Your task to perform on an android device: What's the weather today? Image 0: 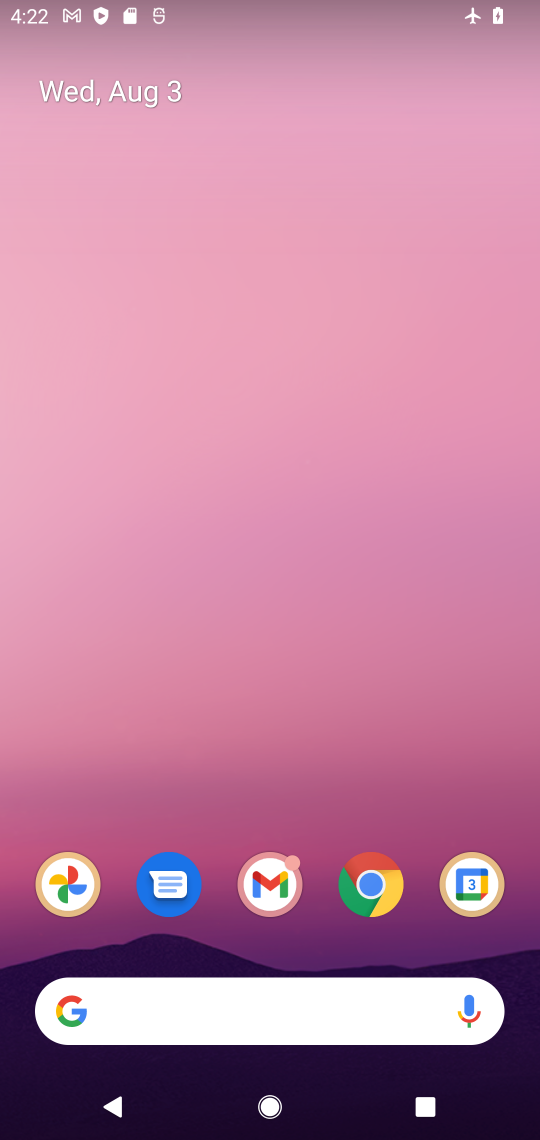
Step 0: drag from (298, 598) to (382, 1)
Your task to perform on an android device: What's the weather today? Image 1: 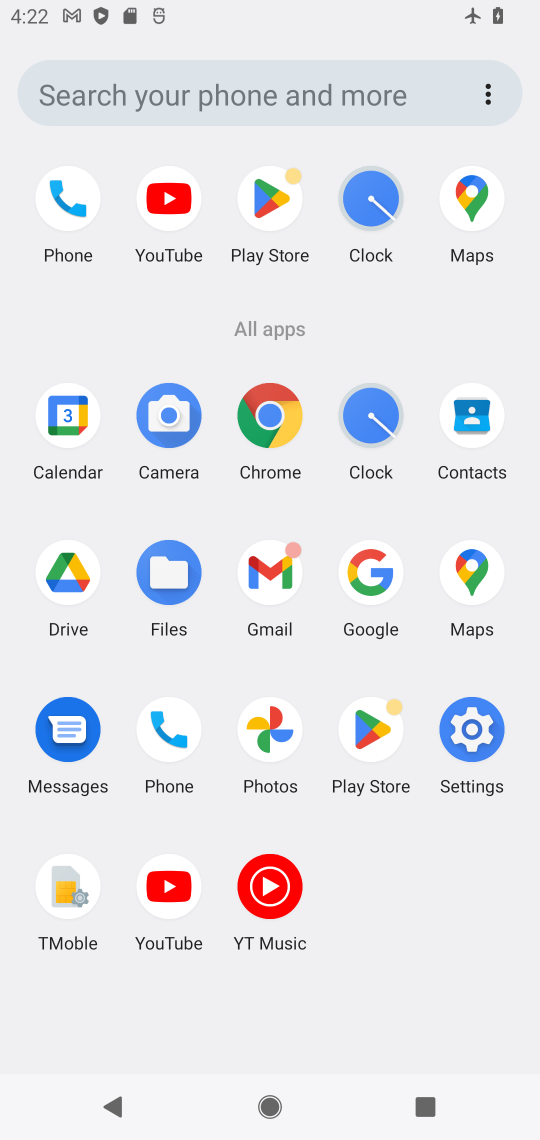
Step 1: click (354, 596)
Your task to perform on an android device: What's the weather today? Image 2: 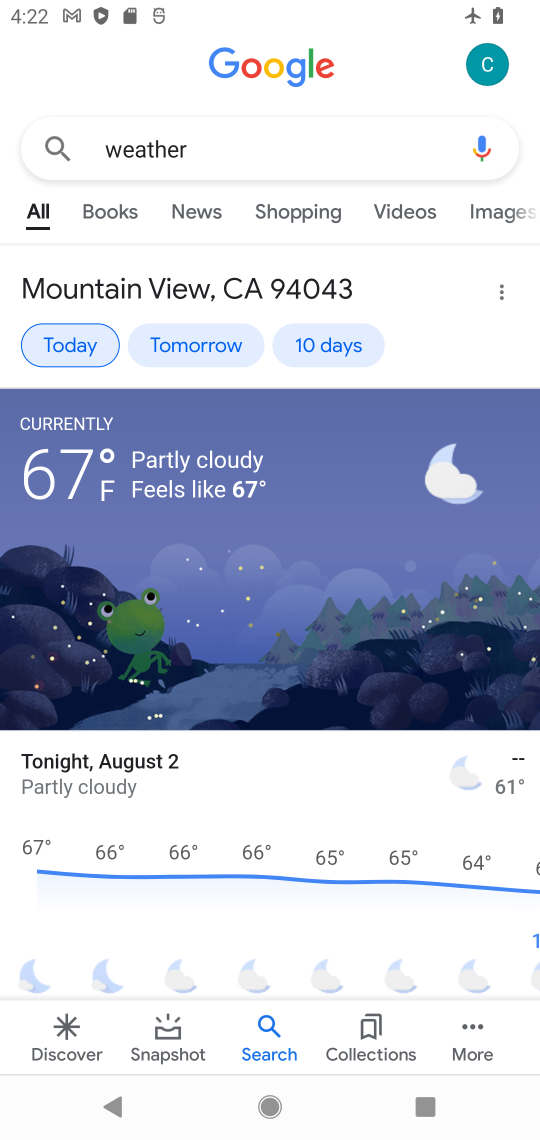
Step 2: task complete